Your task to perform on an android device: change the clock display to digital Image 0: 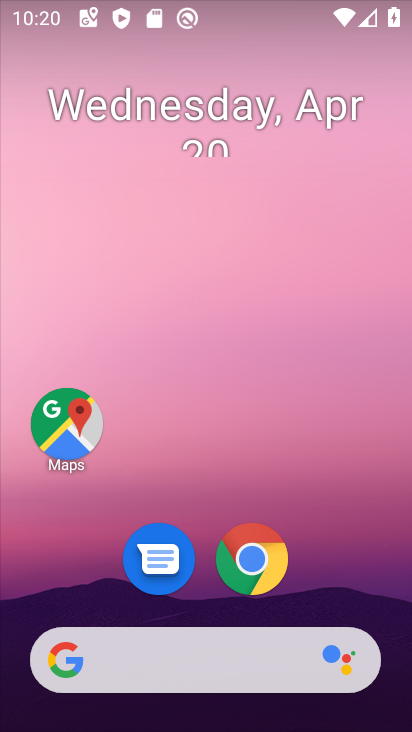
Step 0: drag from (199, 723) to (165, 195)
Your task to perform on an android device: change the clock display to digital Image 1: 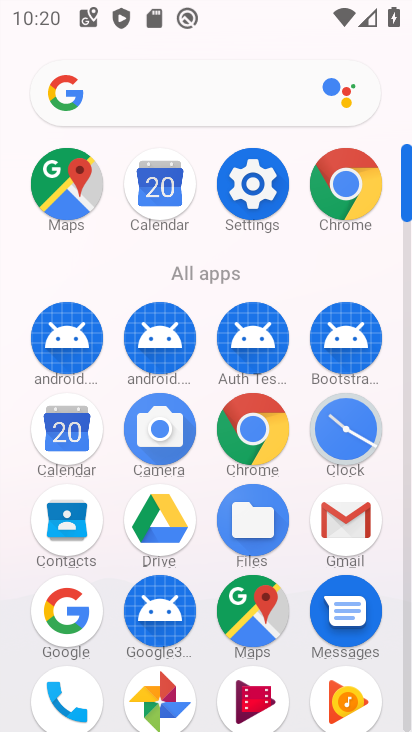
Step 1: click (340, 431)
Your task to perform on an android device: change the clock display to digital Image 2: 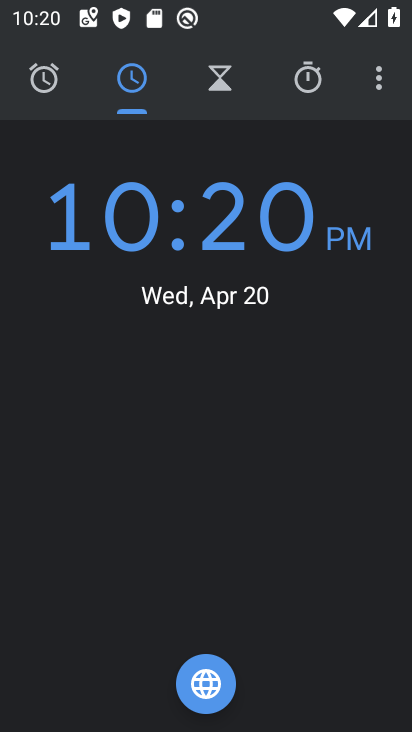
Step 2: click (379, 79)
Your task to perform on an android device: change the clock display to digital Image 3: 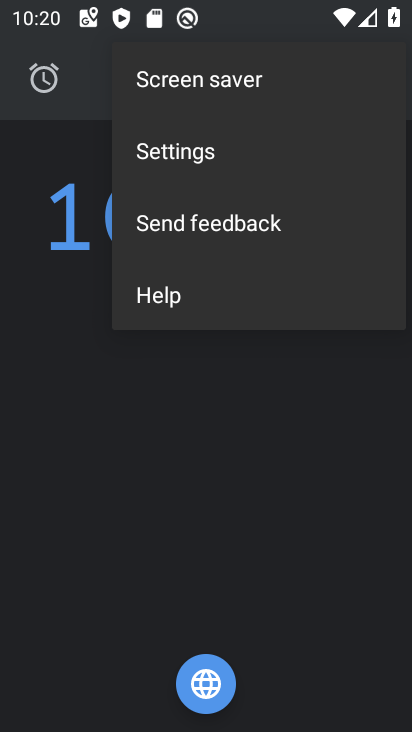
Step 3: click (163, 150)
Your task to perform on an android device: change the clock display to digital Image 4: 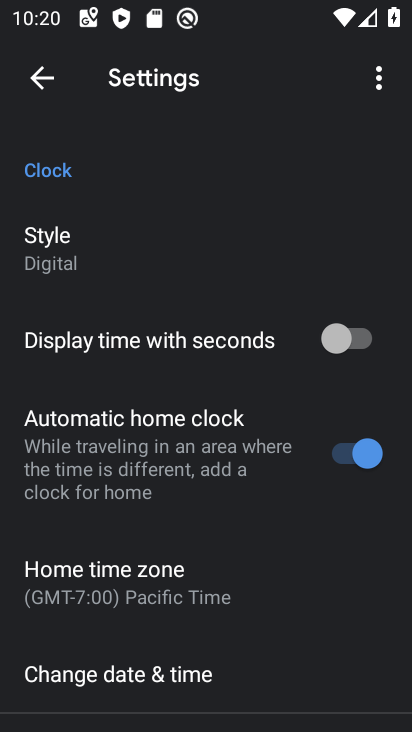
Step 4: task complete